Your task to perform on an android device: search for starred emails in the gmail app Image 0: 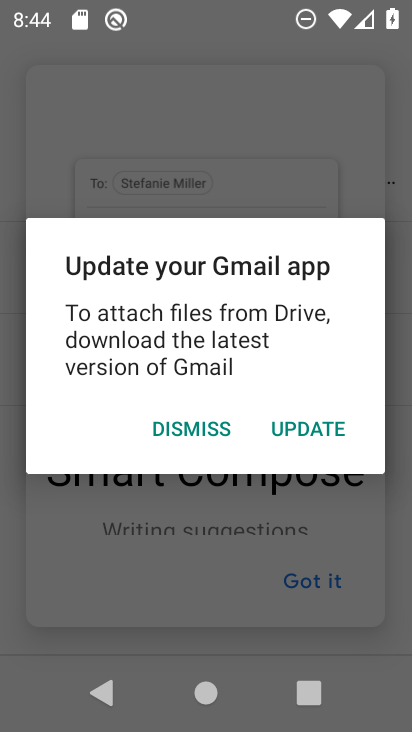
Step 0: press home button
Your task to perform on an android device: search for starred emails in the gmail app Image 1: 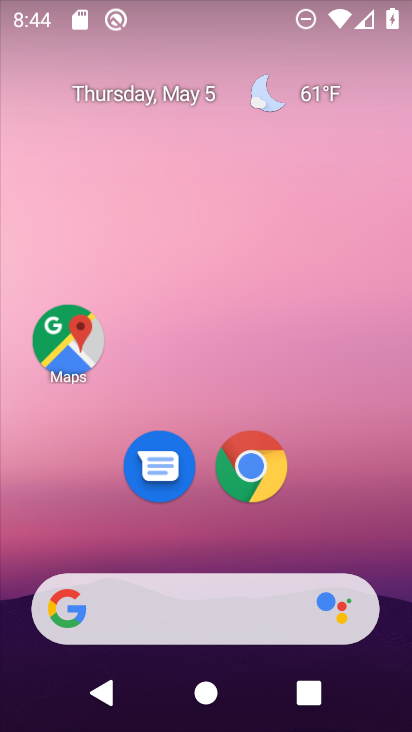
Step 1: drag from (238, 601) to (228, 171)
Your task to perform on an android device: search for starred emails in the gmail app Image 2: 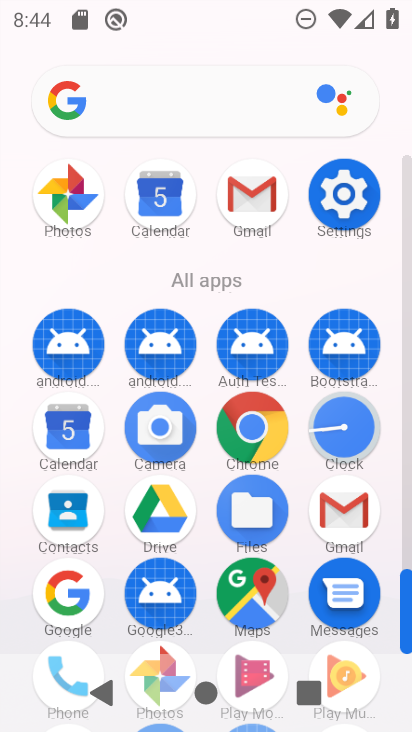
Step 2: click (252, 213)
Your task to perform on an android device: search for starred emails in the gmail app Image 3: 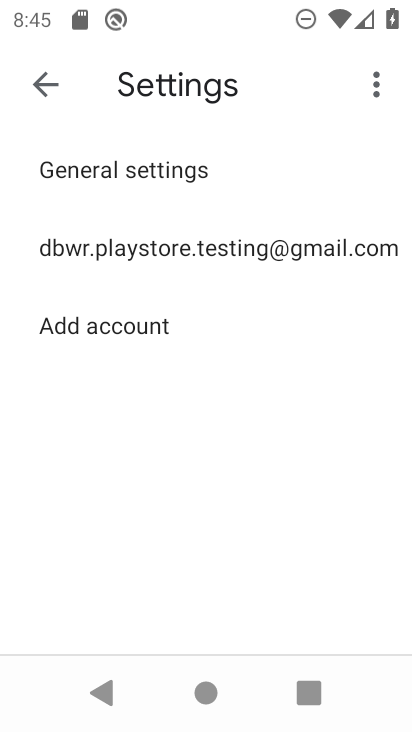
Step 3: press back button
Your task to perform on an android device: search for starred emails in the gmail app Image 4: 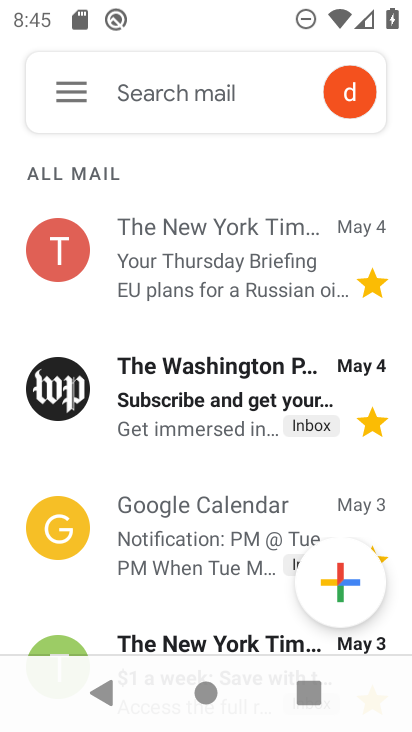
Step 4: click (82, 88)
Your task to perform on an android device: search for starred emails in the gmail app Image 5: 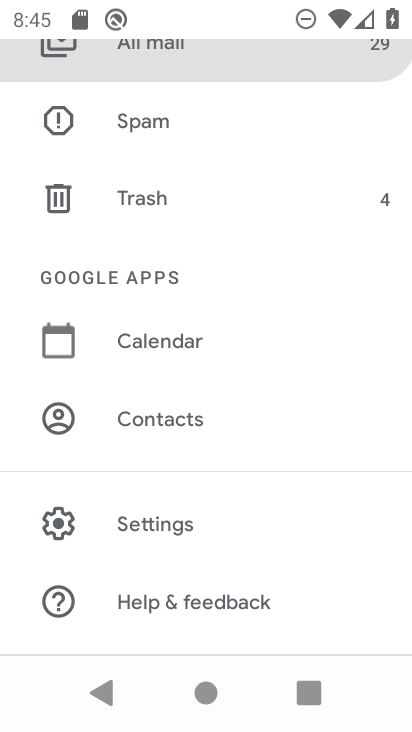
Step 5: drag from (182, 162) to (215, 685)
Your task to perform on an android device: search for starred emails in the gmail app Image 6: 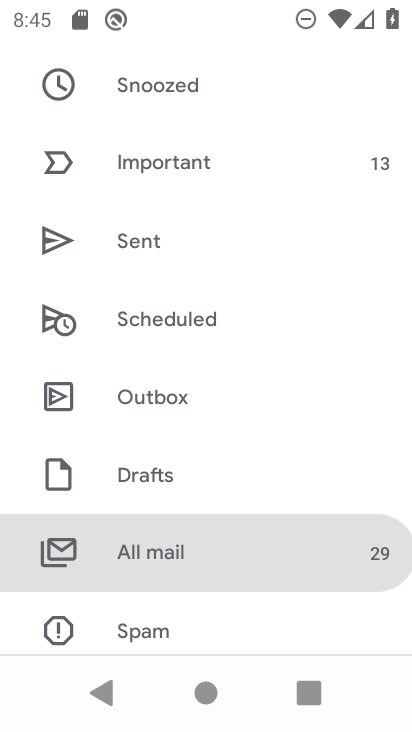
Step 6: drag from (205, 284) to (187, 713)
Your task to perform on an android device: search for starred emails in the gmail app Image 7: 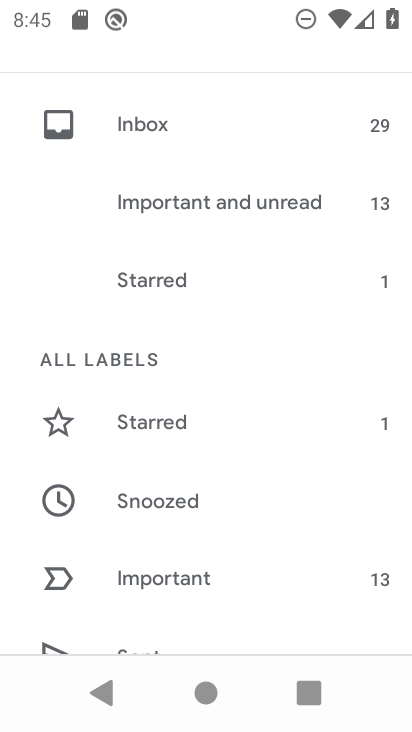
Step 7: click (190, 430)
Your task to perform on an android device: search for starred emails in the gmail app Image 8: 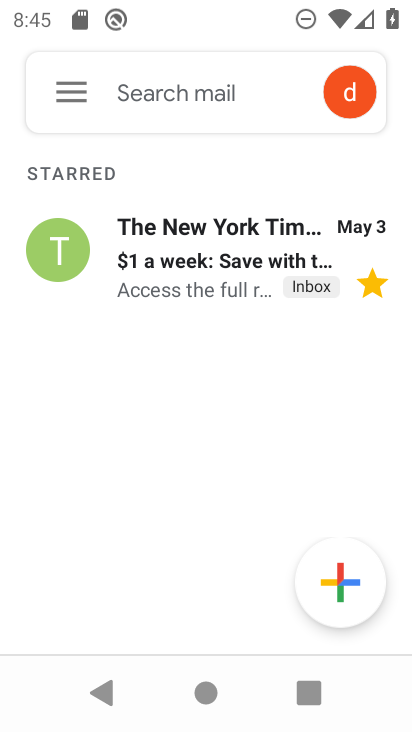
Step 8: task complete